Your task to perform on an android device: Clear the shopping cart on target. Search for bose quietcomfort 35 on target, select the first entry, and add it to the cart. Image 0: 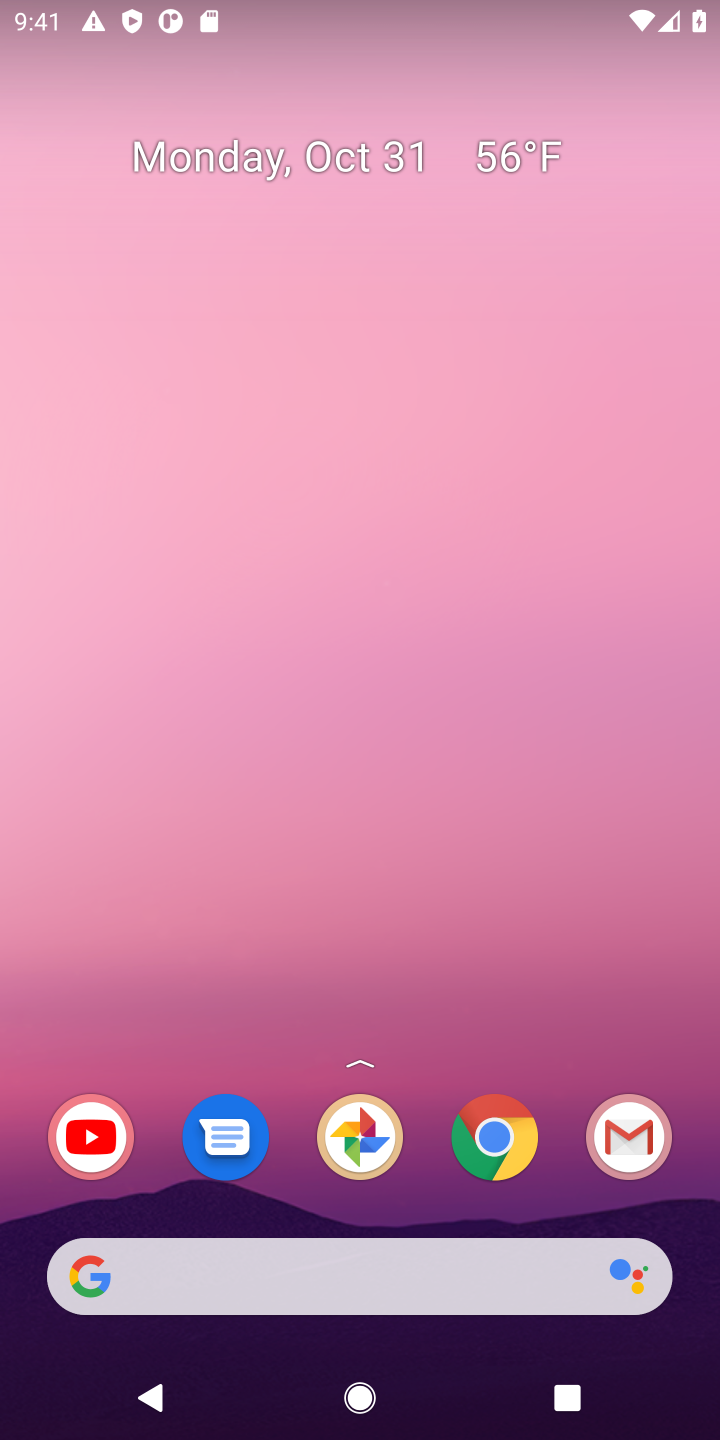
Step 0: click (491, 1140)
Your task to perform on an android device: Clear the shopping cart on target. Search for bose quietcomfort 35 on target, select the first entry, and add it to the cart. Image 1: 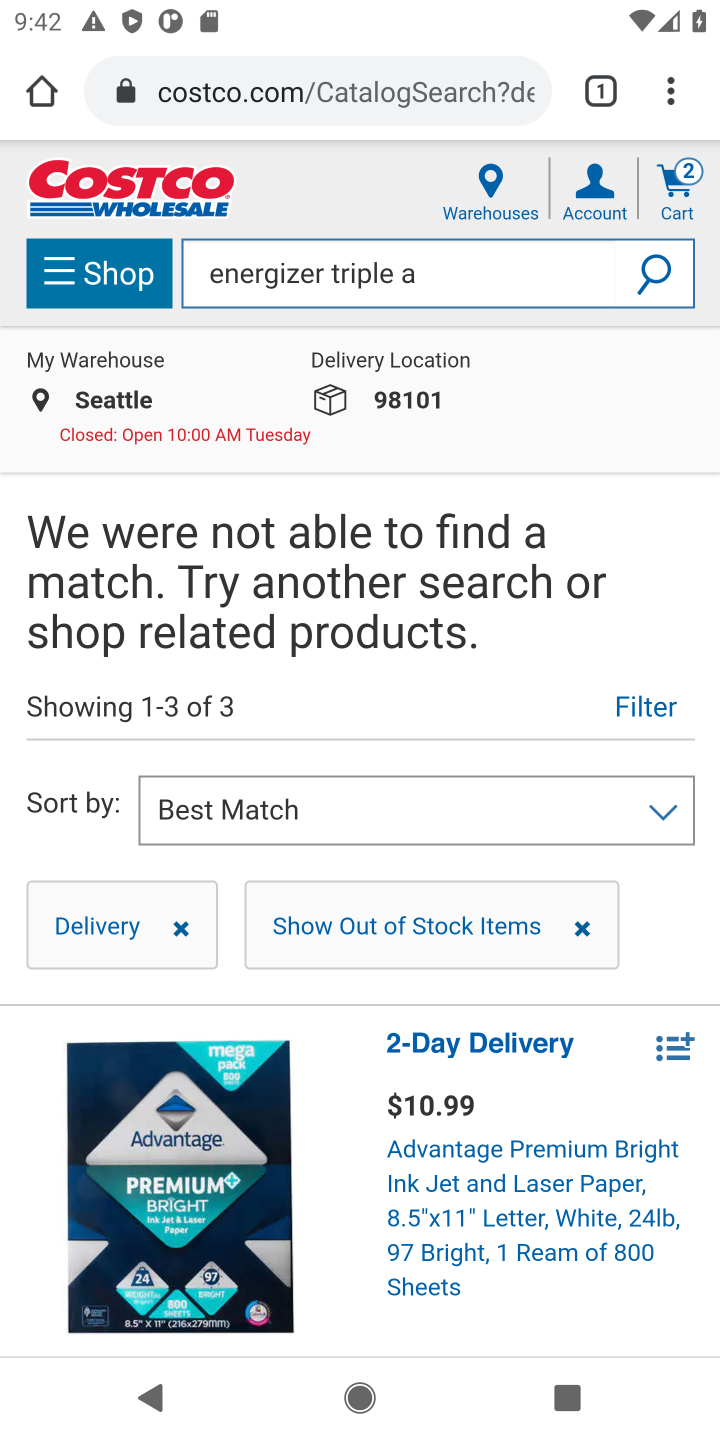
Step 1: click (417, 97)
Your task to perform on an android device: Clear the shopping cart on target. Search for bose quietcomfort 35 on target, select the first entry, and add it to the cart. Image 2: 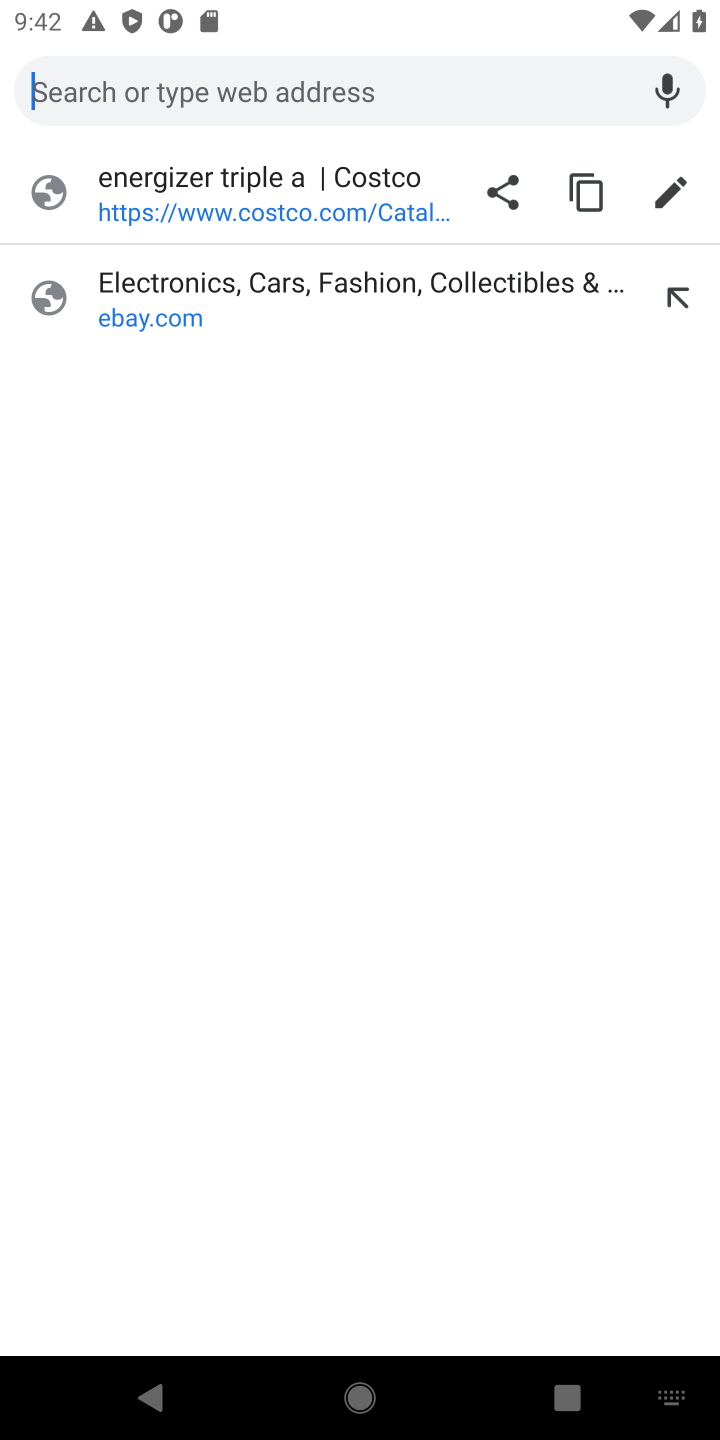
Step 2: type "target"
Your task to perform on an android device: Clear the shopping cart on target. Search for bose quietcomfort 35 on target, select the first entry, and add it to the cart. Image 3: 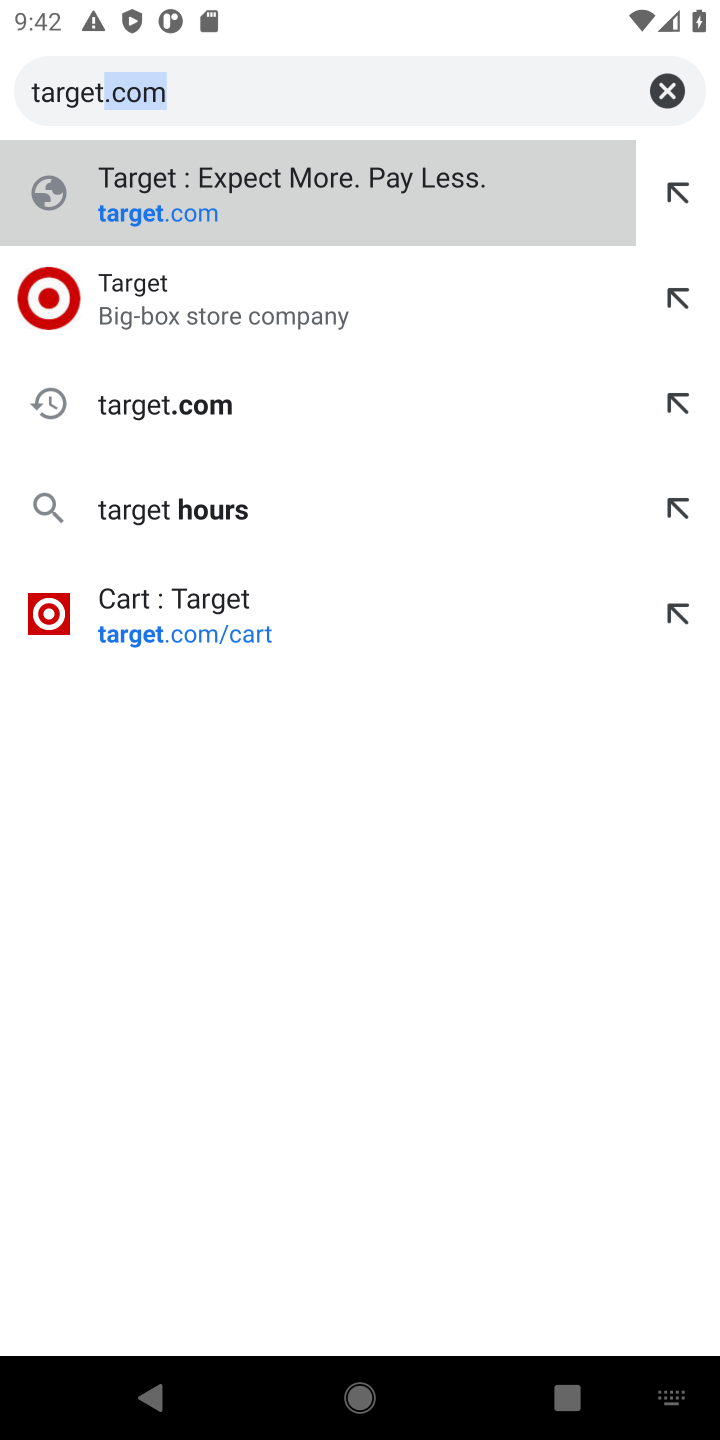
Step 3: click (137, 307)
Your task to perform on an android device: Clear the shopping cart on target. Search for bose quietcomfort 35 on target, select the first entry, and add it to the cart. Image 4: 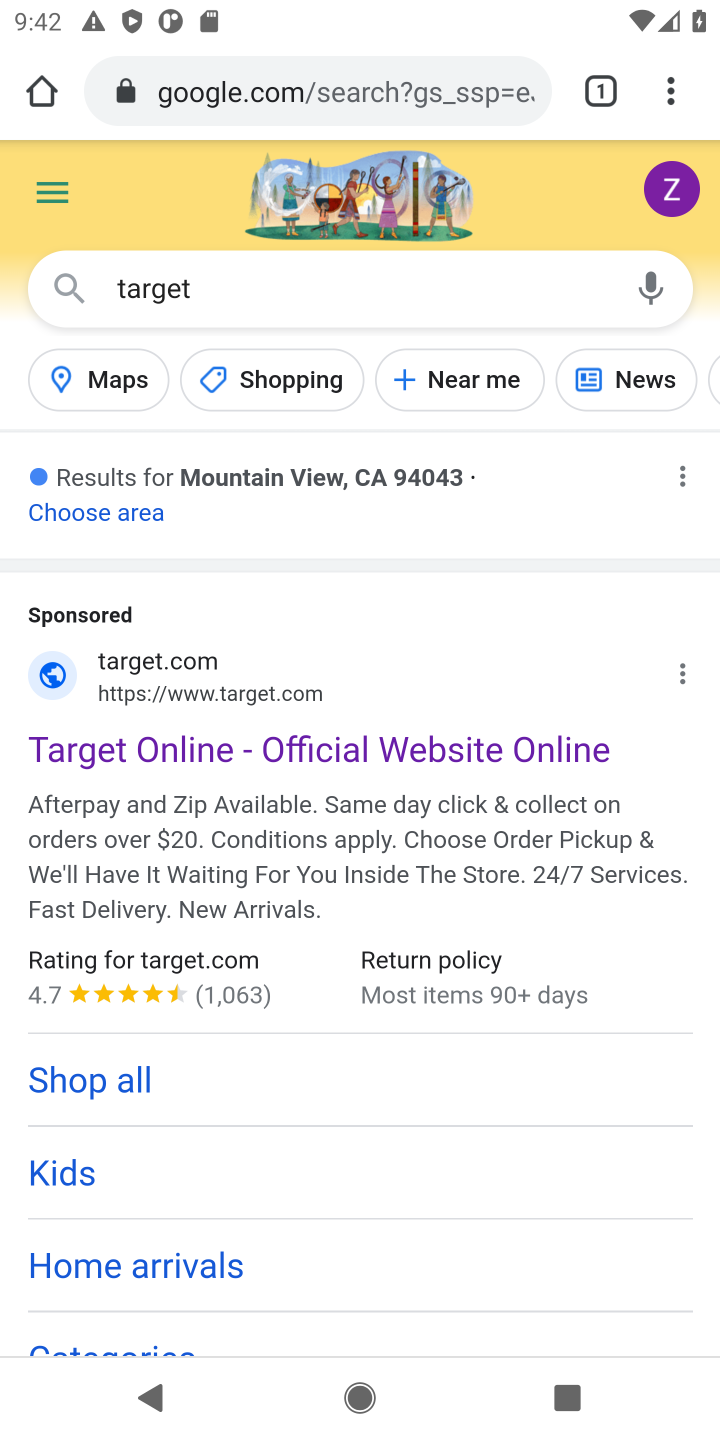
Step 4: drag from (297, 1128) to (398, 477)
Your task to perform on an android device: Clear the shopping cart on target. Search for bose quietcomfort 35 on target, select the first entry, and add it to the cart. Image 5: 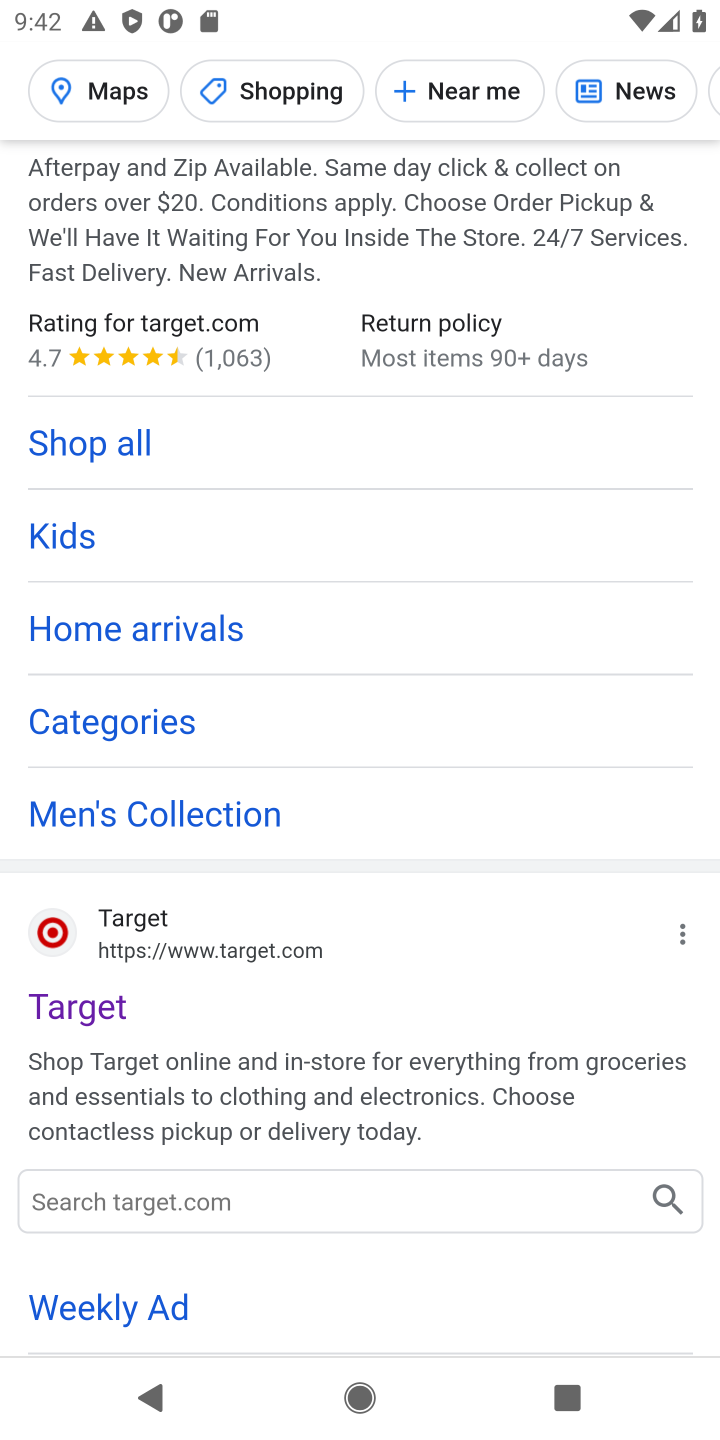
Step 5: click (156, 988)
Your task to perform on an android device: Clear the shopping cart on target. Search for bose quietcomfort 35 on target, select the first entry, and add it to the cart. Image 6: 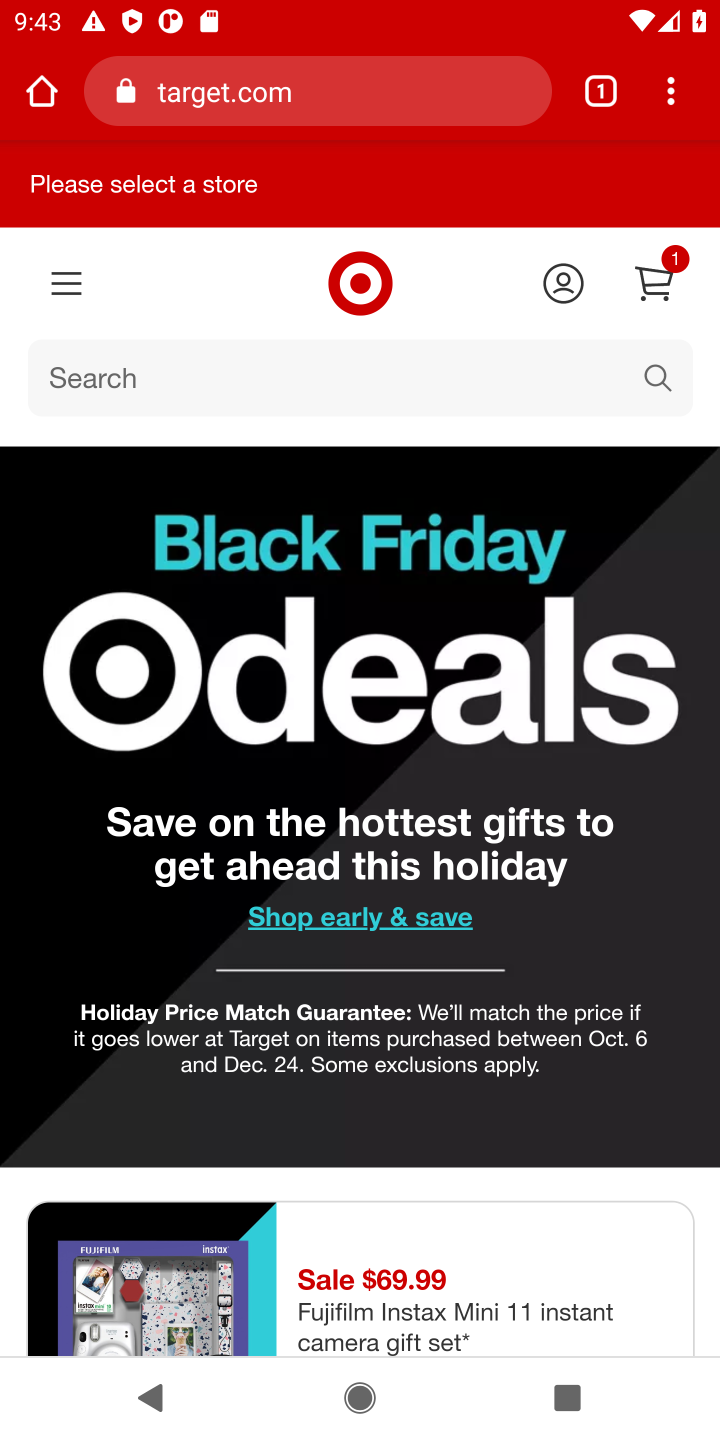
Step 6: click (667, 271)
Your task to perform on an android device: Clear the shopping cart on target. Search for bose quietcomfort 35 on target, select the first entry, and add it to the cart. Image 7: 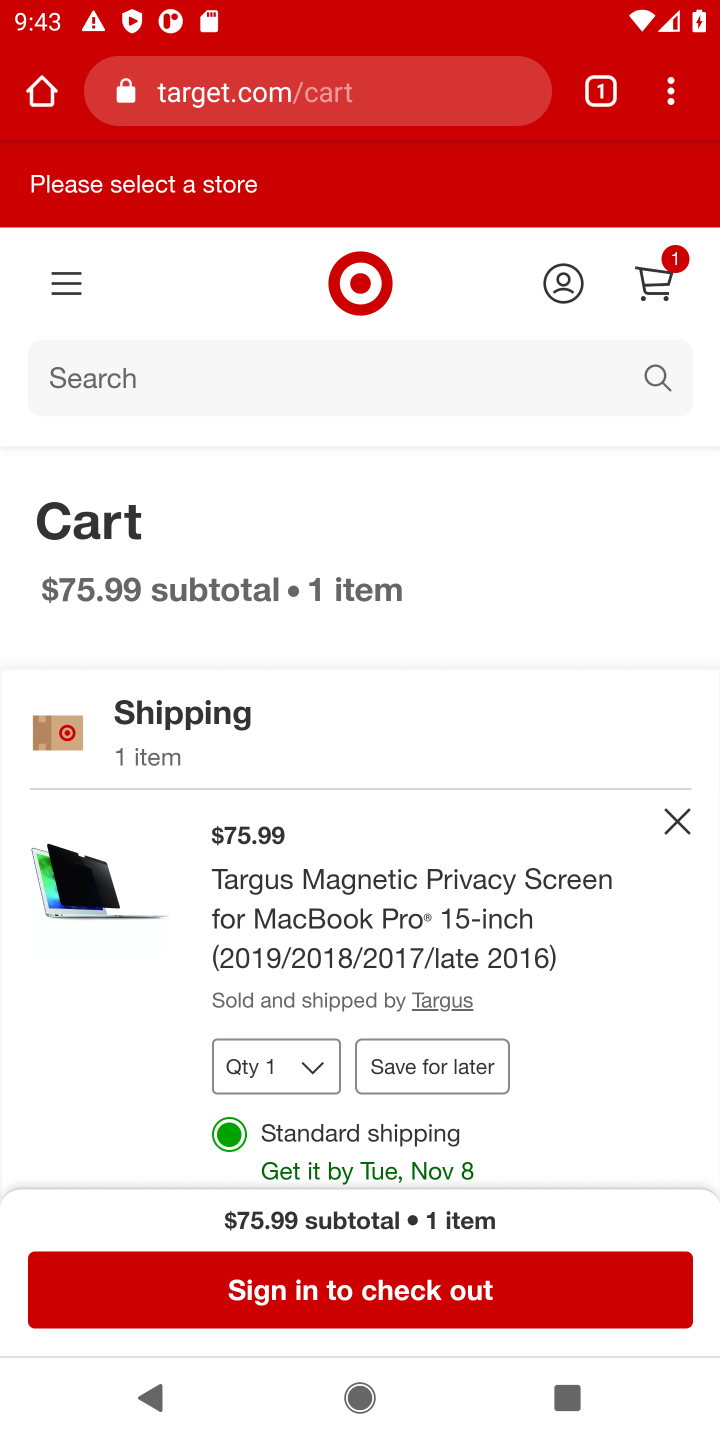
Step 7: drag from (524, 1076) to (547, 692)
Your task to perform on an android device: Clear the shopping cart on target. Search for bose quietcomfort 35 on target, select the first entry, and add it to the cart. Image 8: 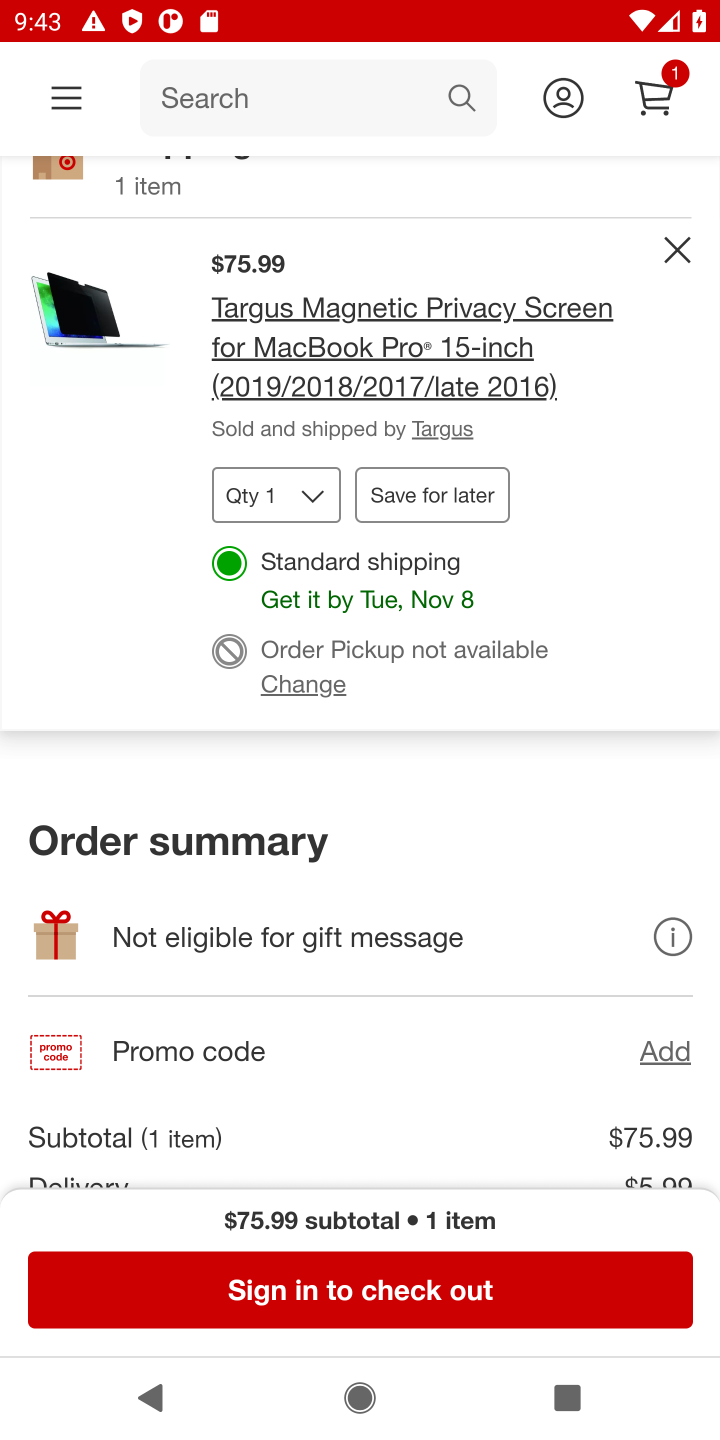
Step 8: click (679, 241)
Your task to perform on an android device: Clear the shopping cart on target. Search for bose quietcomfort 35 on target, select the first entry, and add it to the cart. Image 9: 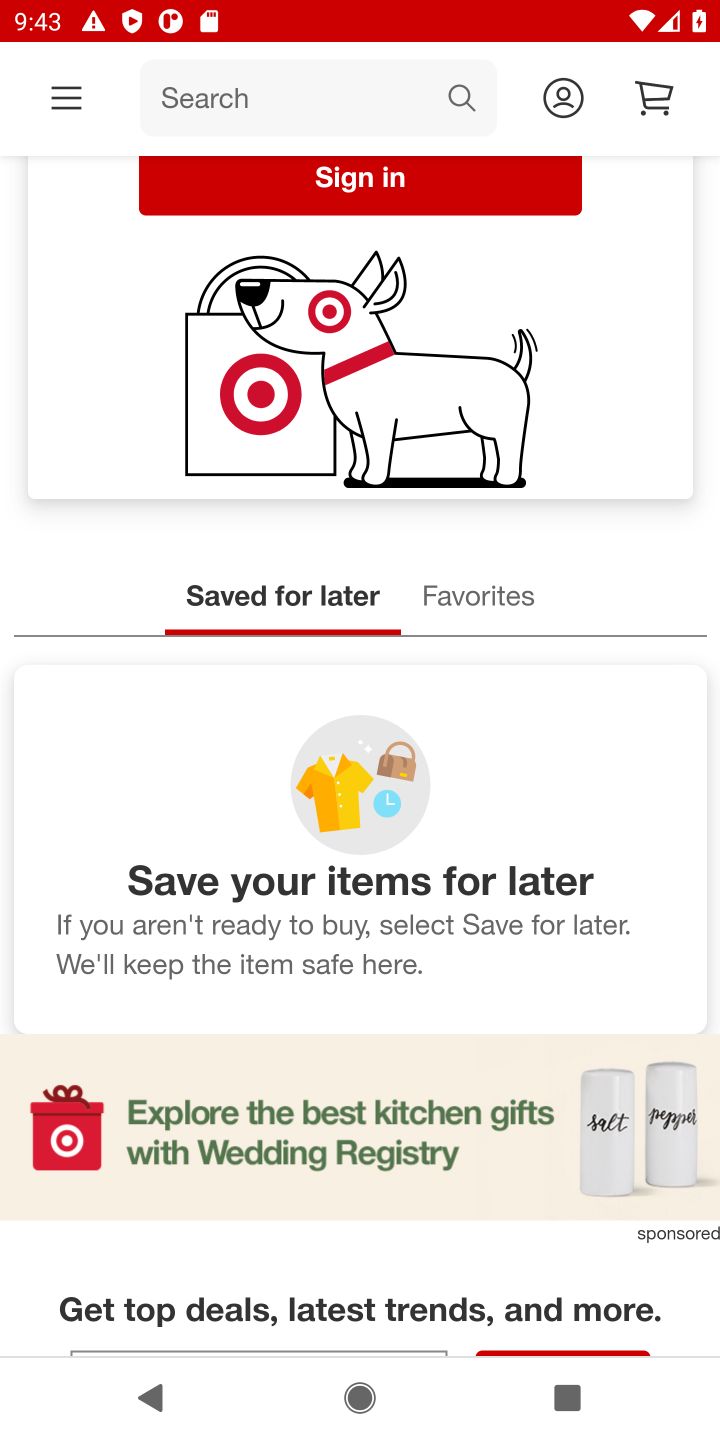
Step 9: drag from (565, 531) to (514, 1099)
Your task to perform on an android device: Clear the shopping cart on target. Search for bose quietcomfort 35 on target, select the first entry, and add it to the cart. Image 10: 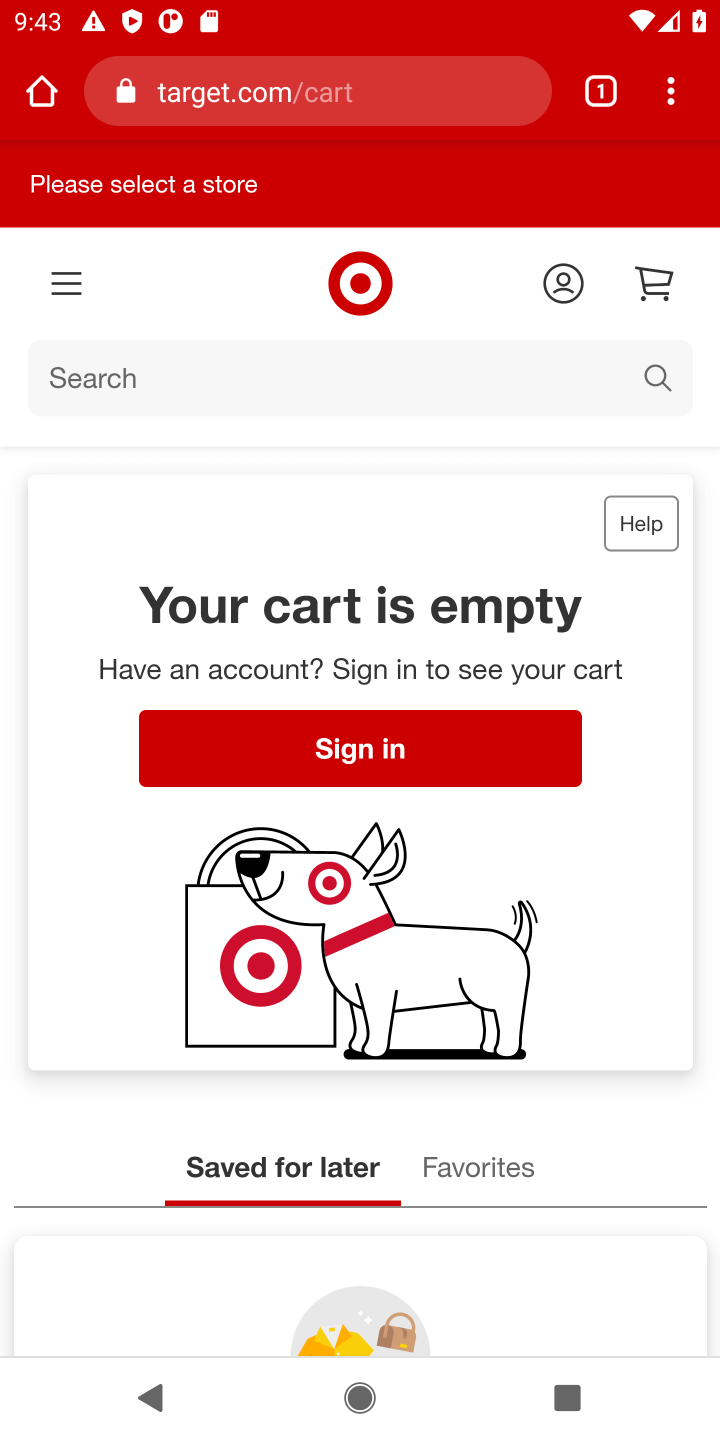
Step 10: click (554, 373)
Your task to perform on an android device: Clear the shopping cart on target. Search for bose quietcomfort 35 on target, select the first entry, and add it to the cart. Image 11: 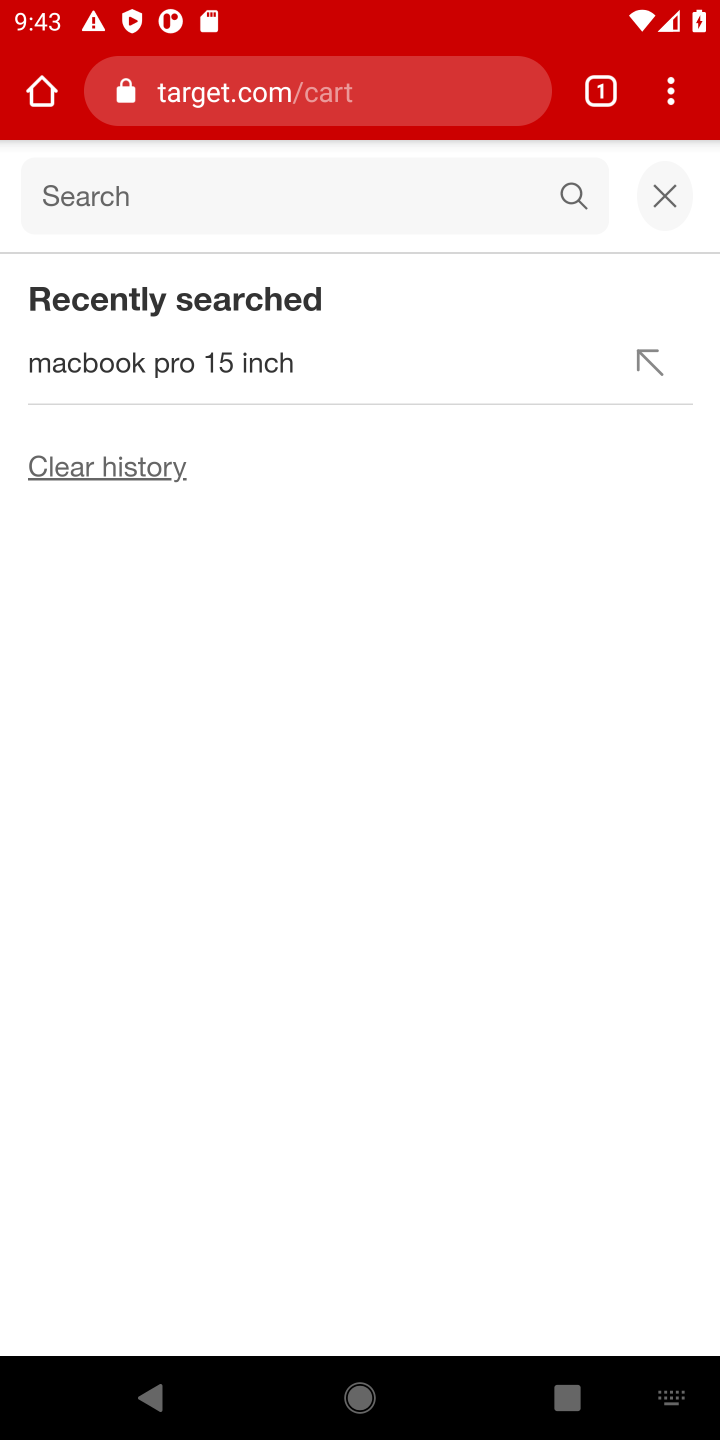
Step 11: type "bose quietcomfort 35"
Your task to perform on an android device: Clear the shopping cart on target. Search for bose quietcomfort 35 on target, select the first entry, and add it to the cart. Image 12: 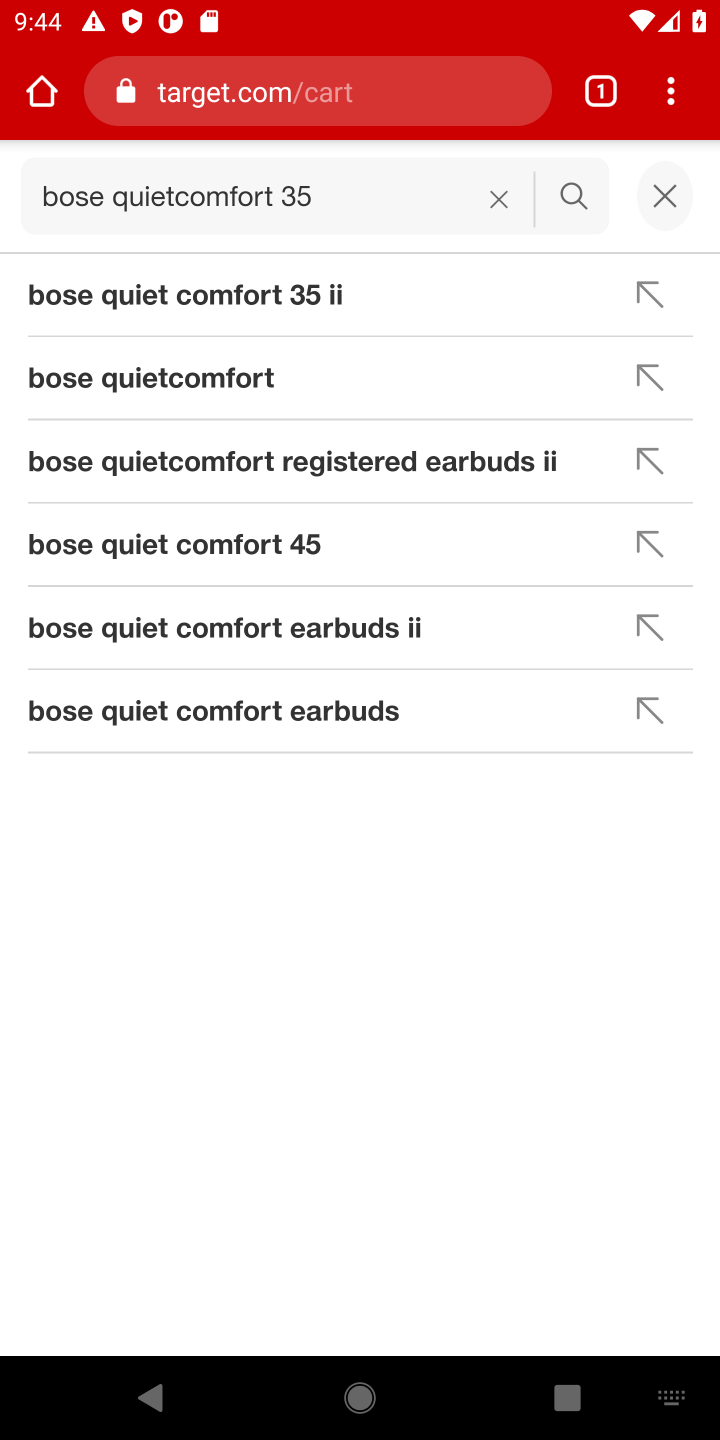
Step 12: click (570, 197)
Your task to perform on an android device: Clear the shopping cart on target. Search for bose quietcomfort 35 on target, select the first entry, and add it to the cart. Image 13: 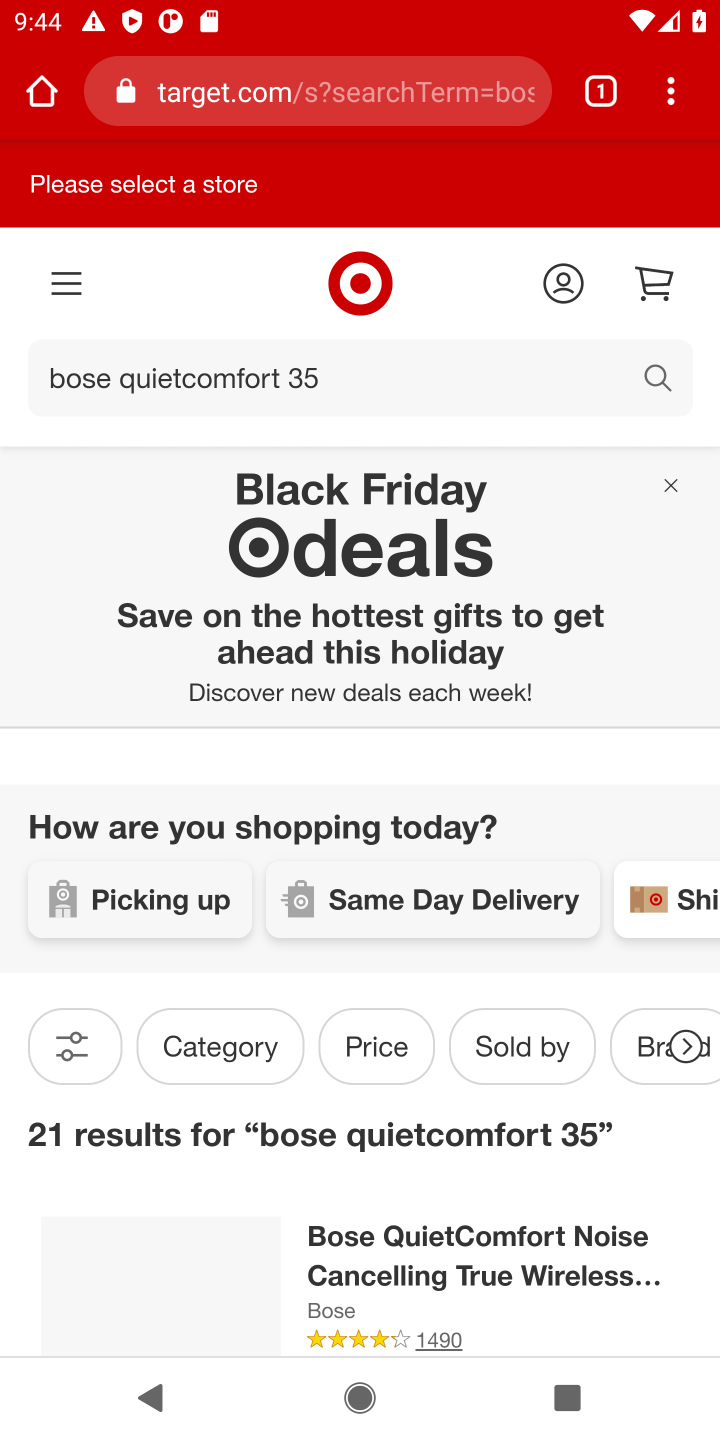
Step 13: drag from (330, 1106) to (422, 541)
Your task to perform on an android device: Clear the shopping cart on target. Search for bose quietcomfort 35 on target, select the first entry, and add it to the cart. Image 14: 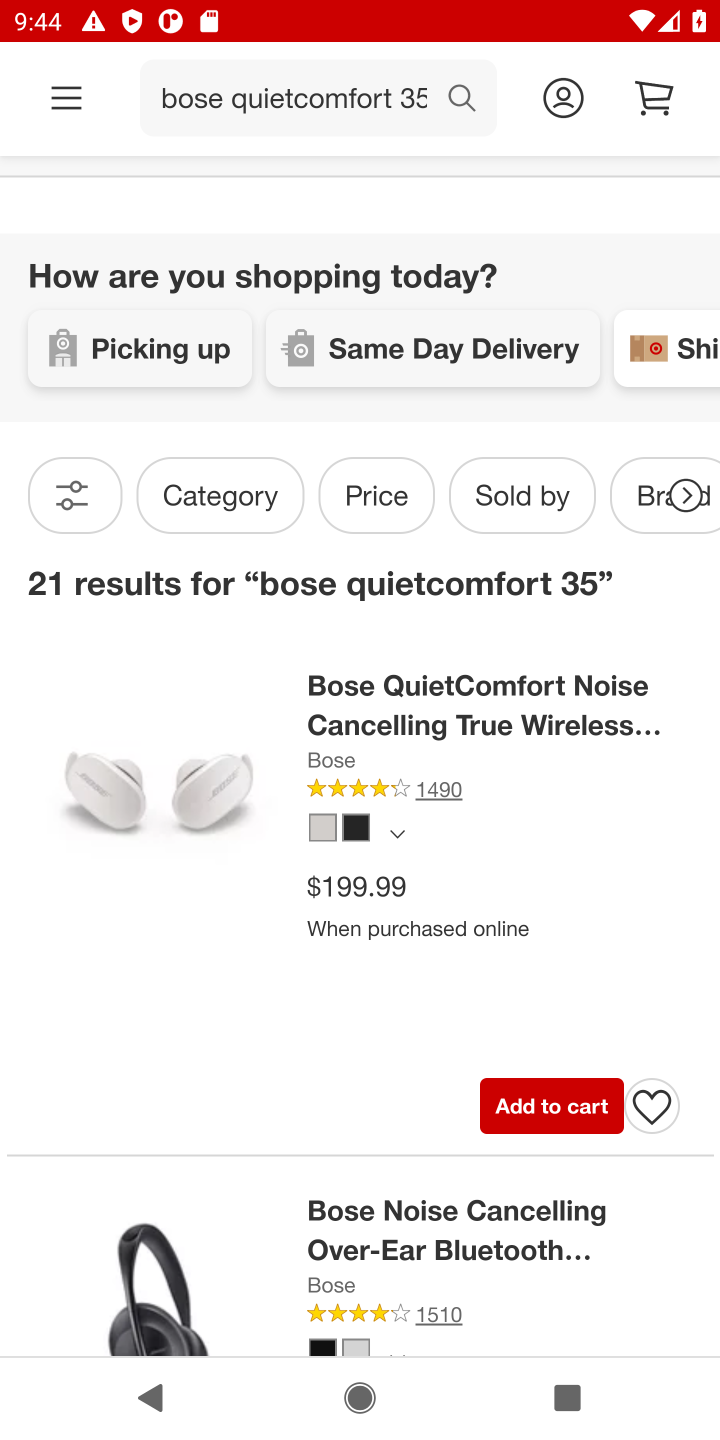
Step 14: click (534, 1105)
Your task to perform on an android device: Clear the shopping cart on target. Search for bose quietcomfort 35 on target, select the first entry, and add it to the cart. Image 15: 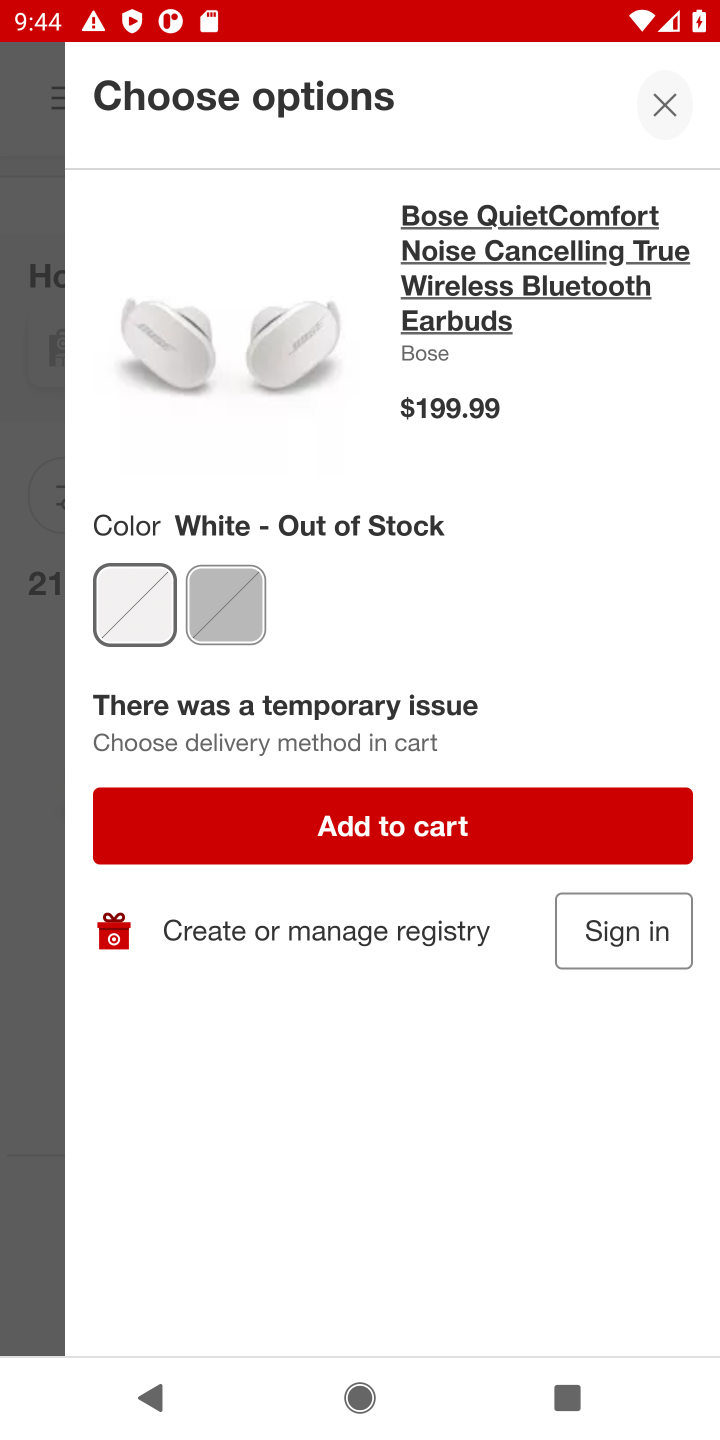
Step 15: click (421, 830)
Your task to perform on an android device: Clear the shopping cart on target. Search for bose quietcomfort 35 on target, select the first entry, and add it to the cart. Image 16: 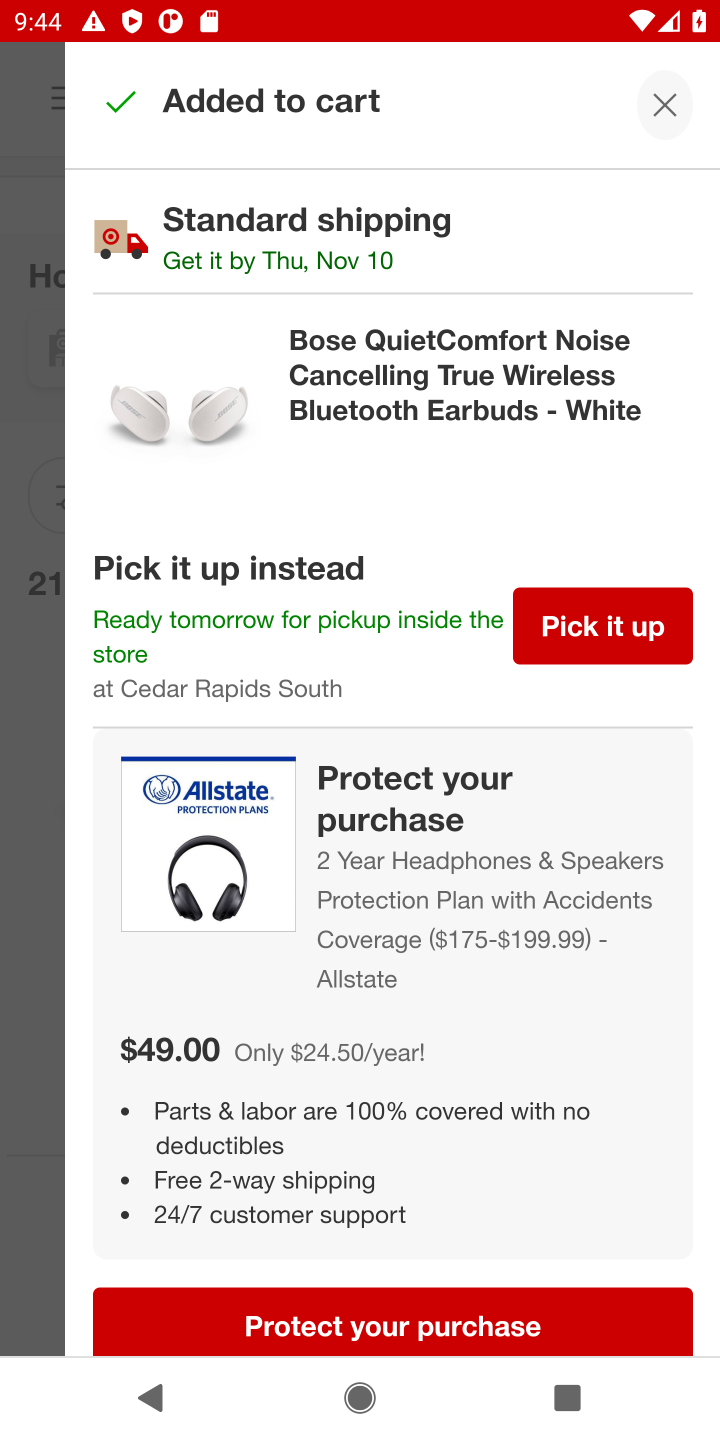
Step 16: drag from (505, 1103) to (538, 507)
Your task to perform on an android device: Clear the shopping cart on target. Search for bose quietcomfort 35 on target, select the first entry, and add it to the cart. Image 17: 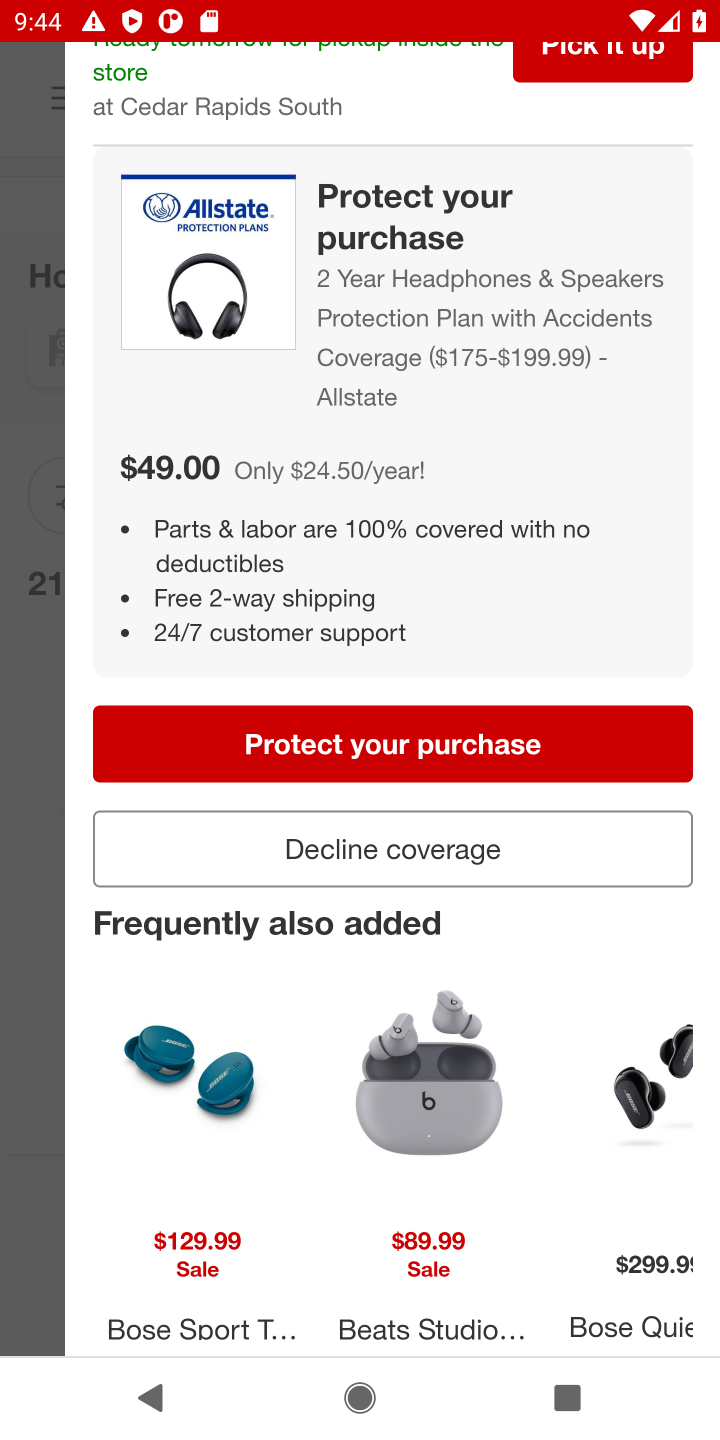
Step 17: click (500, 870)
Your task to perform on an android device: Clear the shopping cart on target. Search for bose quietcomfort 35 on target, select the first entry, and add it to the cart. Image 18: 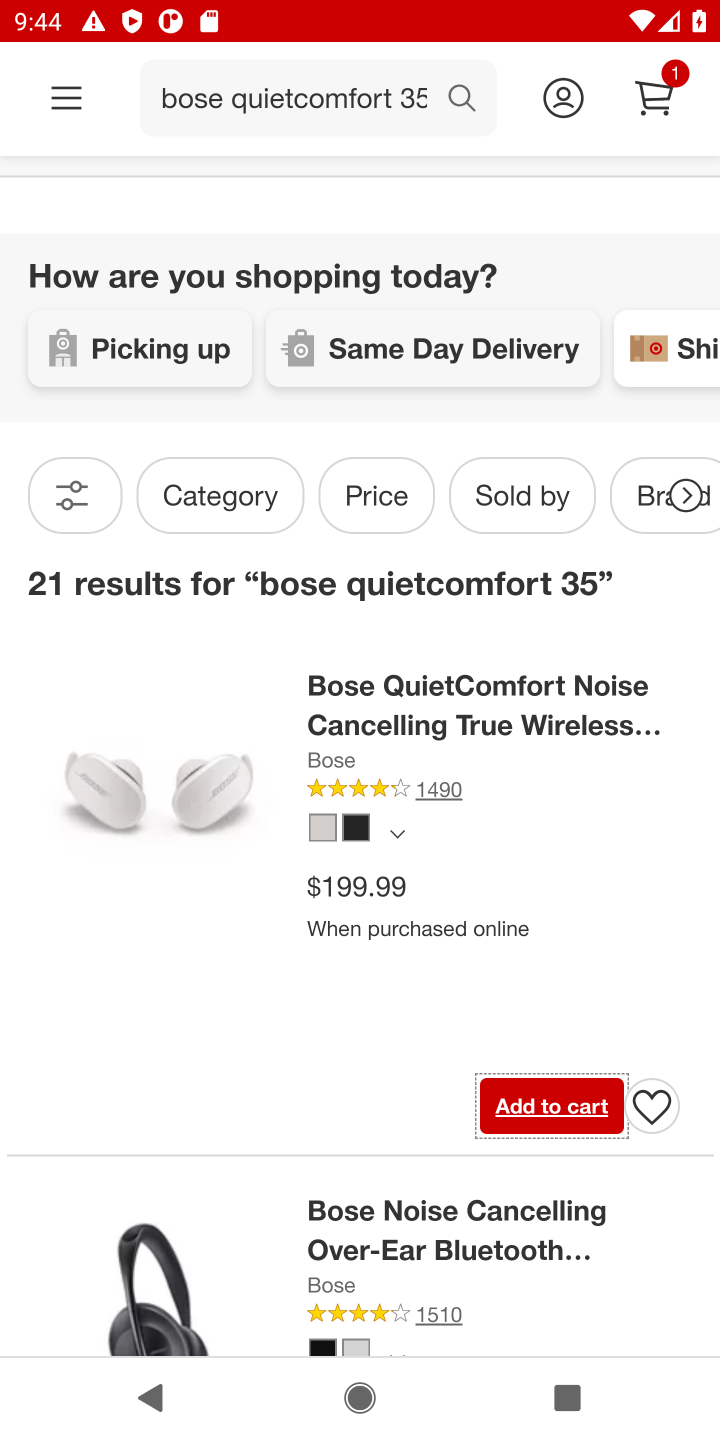
Step 18: task complete